Your task to perform on an android device: Is it going to rain this weekend? Image 0: 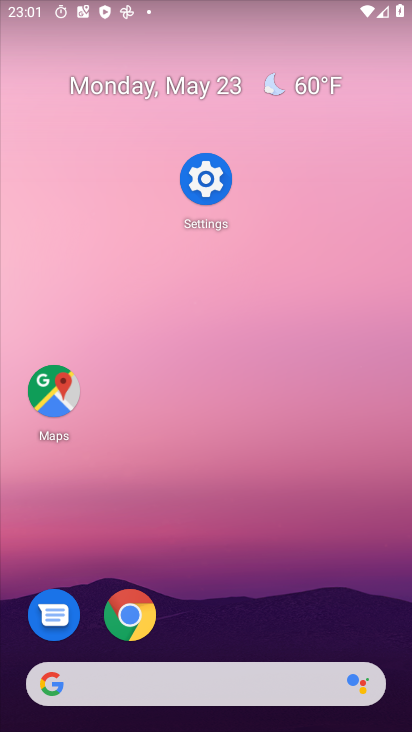
Step 0: click (286, 71)
Your task to perform on an android device: Is it going to rain this weekend? Image 1: 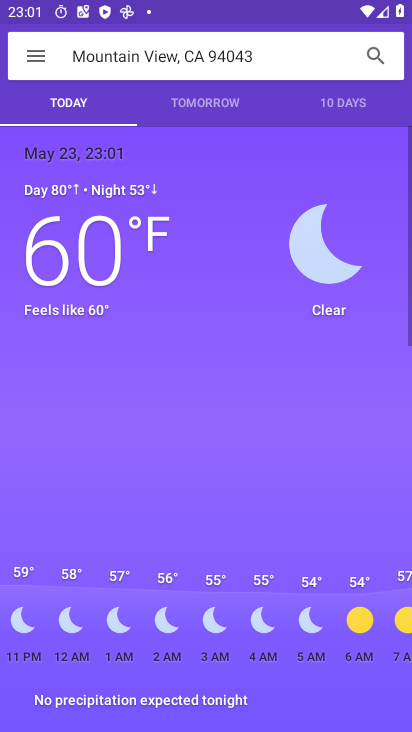
Step 1: press home button
Your task to perform on an android device: Is it going to rain this weekend? Image 2: 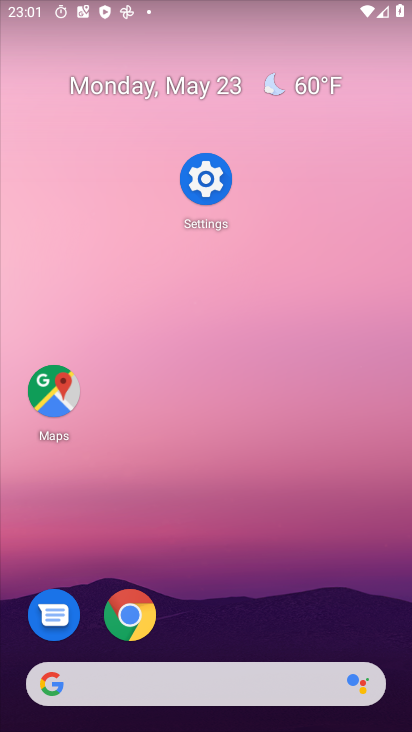
Step 2: drag from (250, 598) to (247, 49)
Your task to perform on an android device: Is it going to rain this weekend? Image 3: 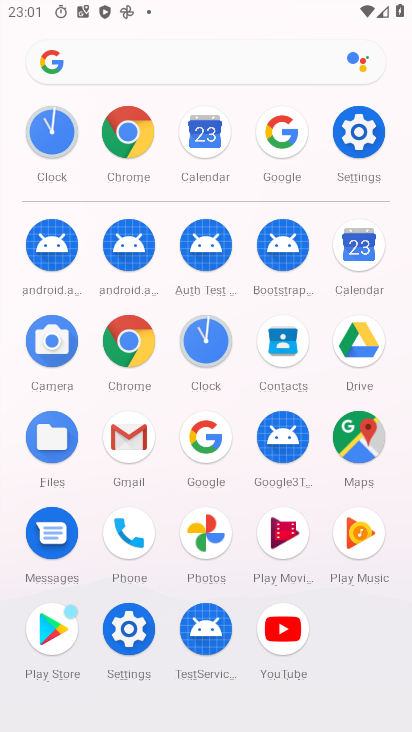
Step 3: click (284, 128)
Your task to perform on an android device: Is it going to rain this weekend? Image 4: 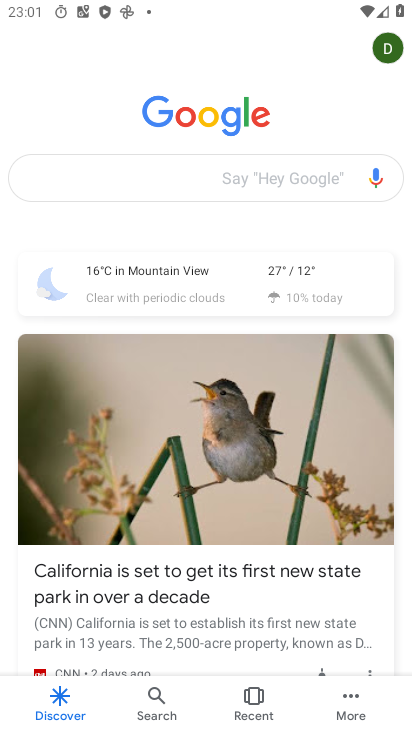
Step 4: click (123, 191)
Your task to perform on an android device: Is it going to rain this weekend? Image 5: 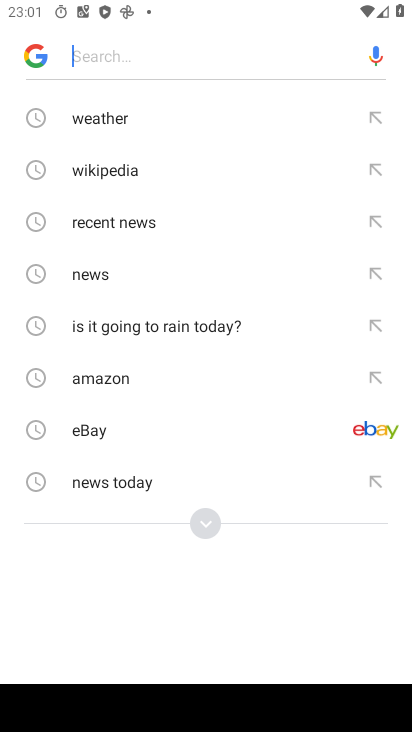
Step 5: type "is it going to rain this weekend"
Your task to perform on an android device: Is it going to rain this weekend? Image 6: 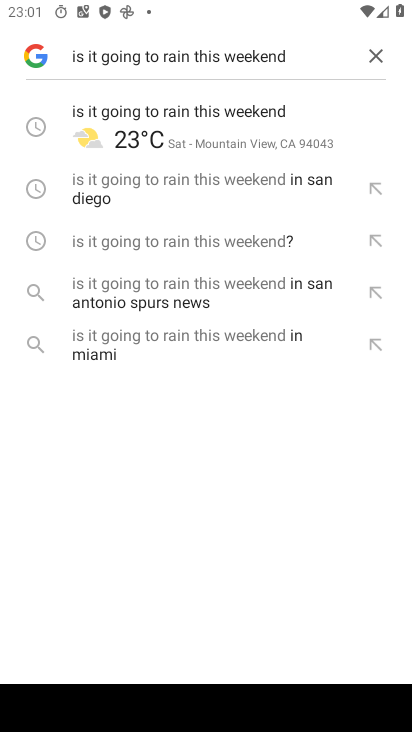
Step 6: click (201, 121)
Your task to perform on an android device: Is it going to rain this weekend? Image 7: 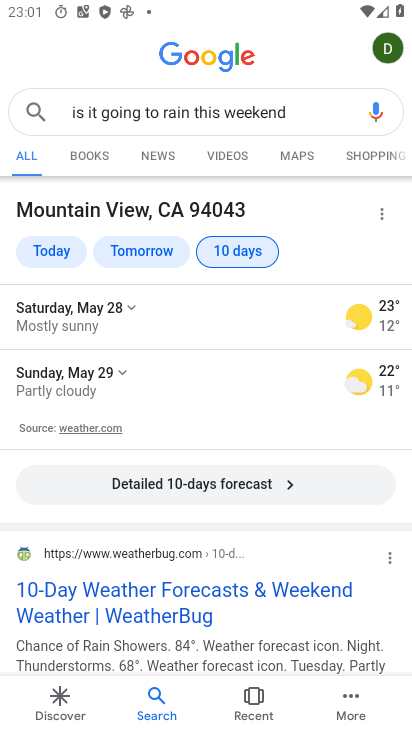
Step 7: task complete